Your task to perform on an android device: check battery use Image 0: 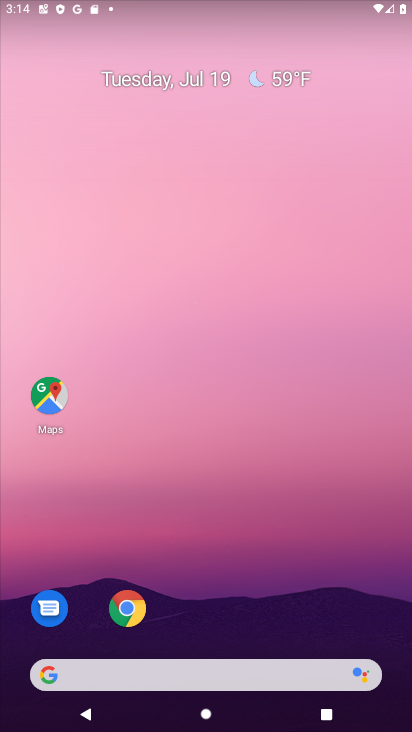
Step 0: drag from (315, 631) to (301, 179)
Your task to perform on an android device: check battery use Image 1: 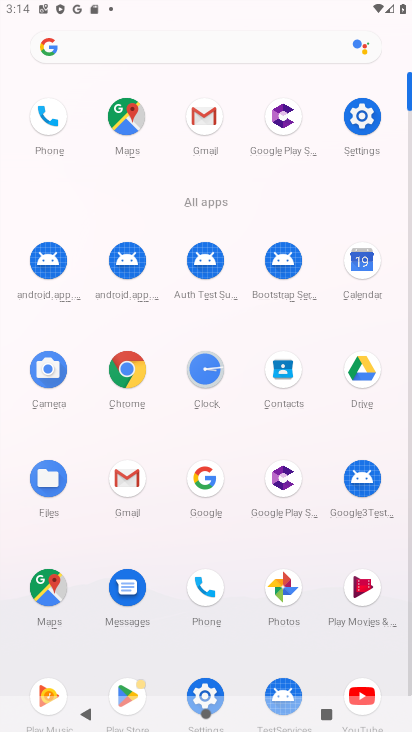
Step 1: click (359, 129)
Your task to perform on an android device: check battery use Image 2: 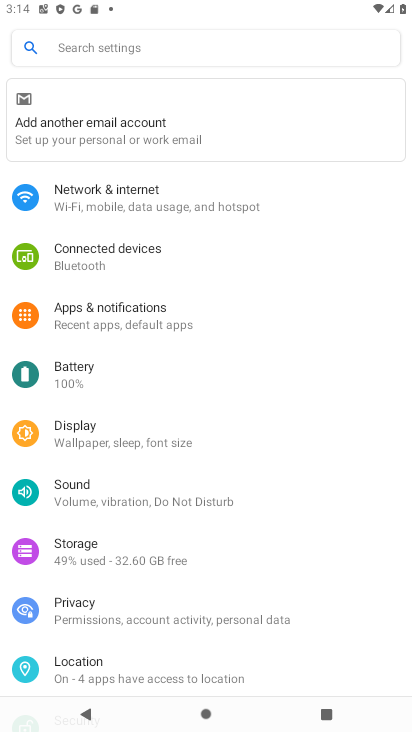
Step 2: click (136, 369)
Your task to perform on an android device: check battery use Image 3: 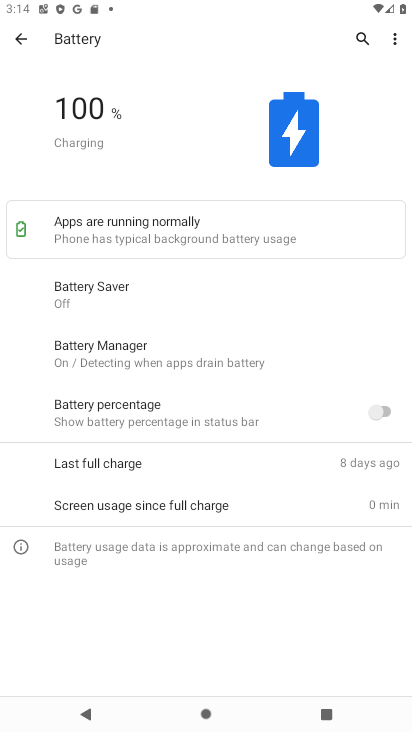
Step 3: click (390, 47)
Your task to perform on an android device: check battery use Image 4: 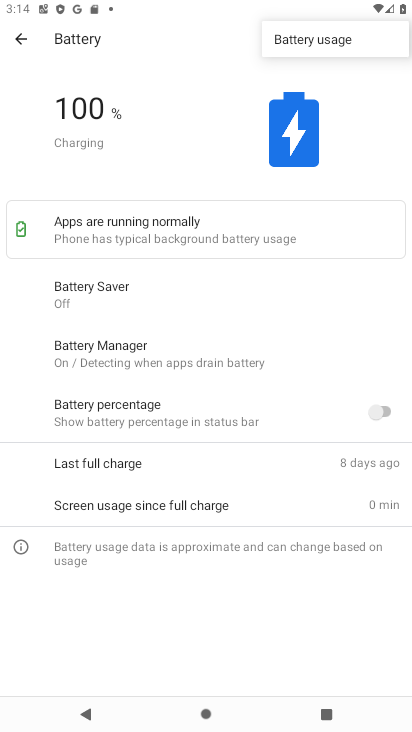
Step 4: click (328, 40)
Your task to perform on an android device: check battery use Image 5: 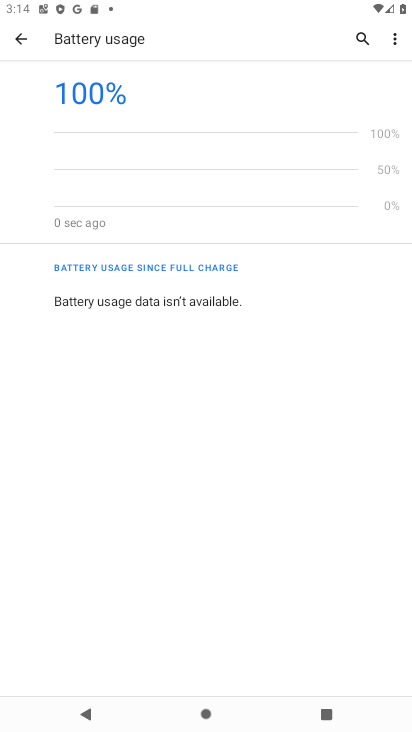
Step 5: task complete